Your task to perform on an android device: open app "Google Chat" Image 0: 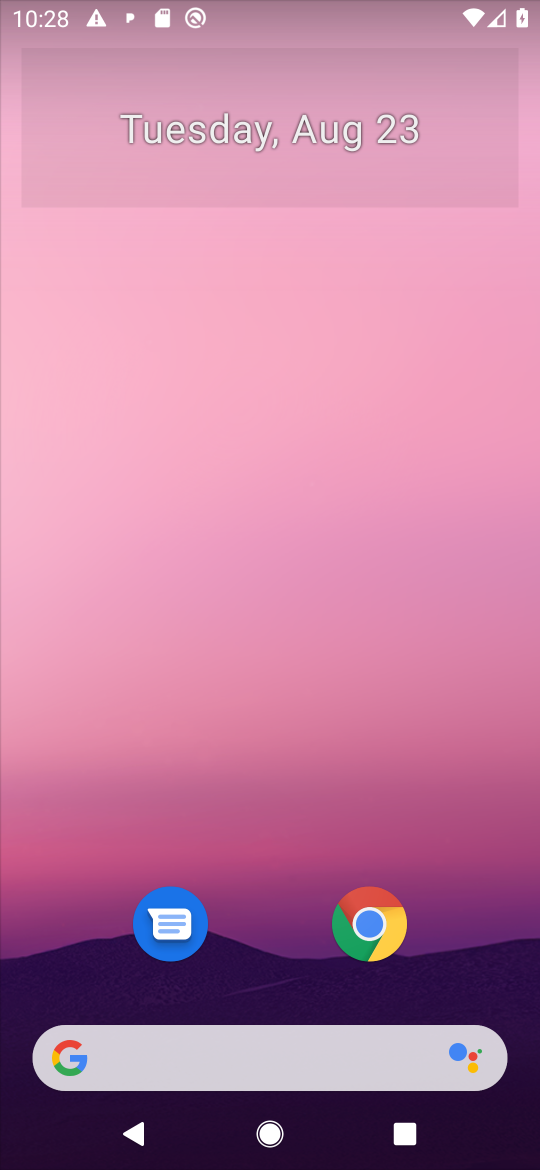
Step 0: press home button
Your task to perform on an android device: open app "Google Chat" Image 1: 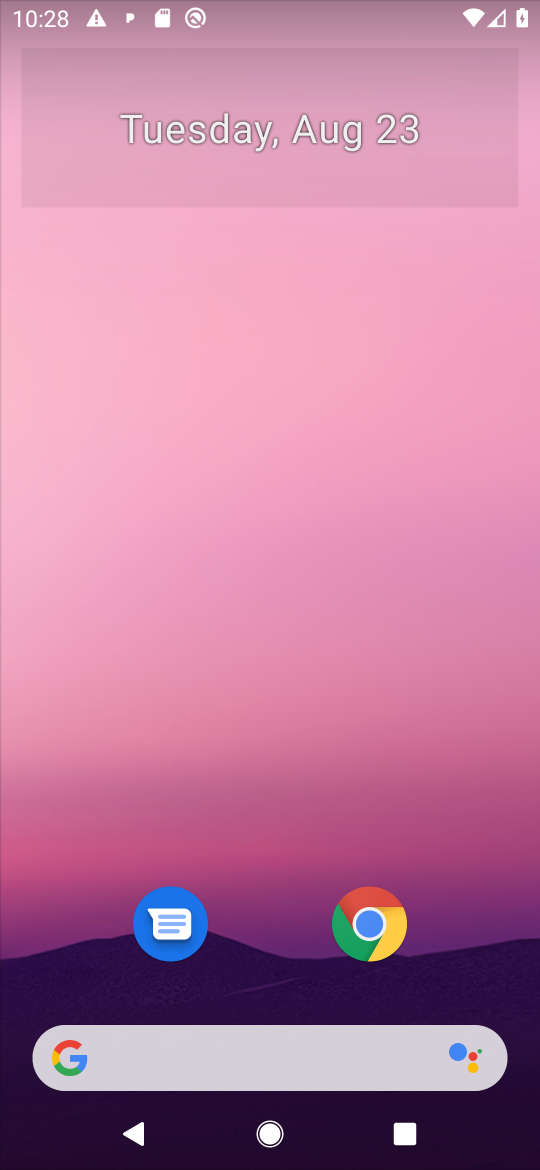
Step 1: drag from (504, 919) to (512, 143)
Your task to perform on an android device: open app "Google Chat" Image 2: 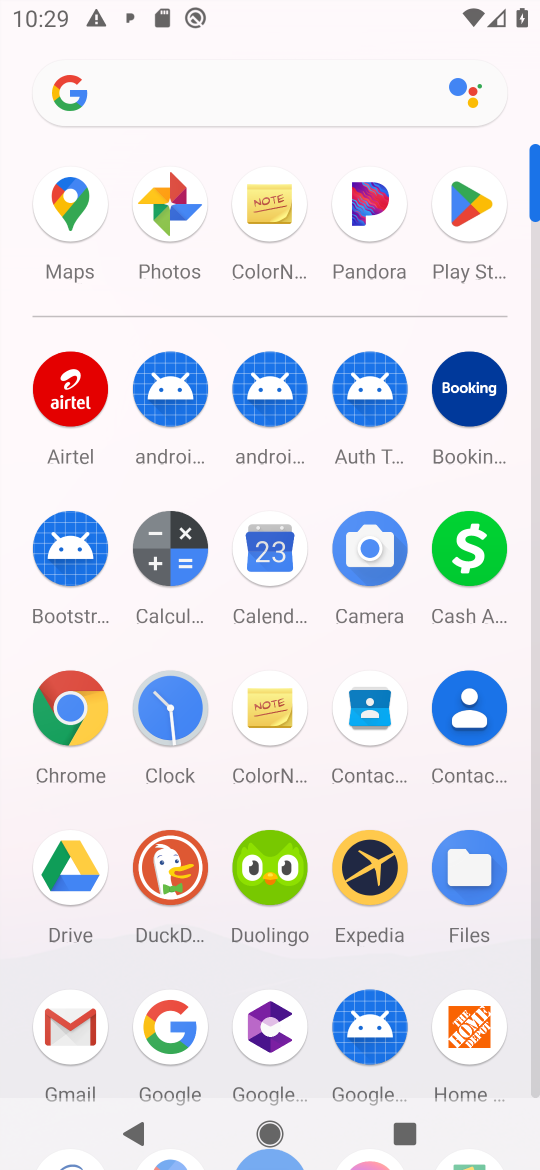
Step 2: click (468, 205)
Your task to perform on an android device: open app "Google Chat" Image 3: 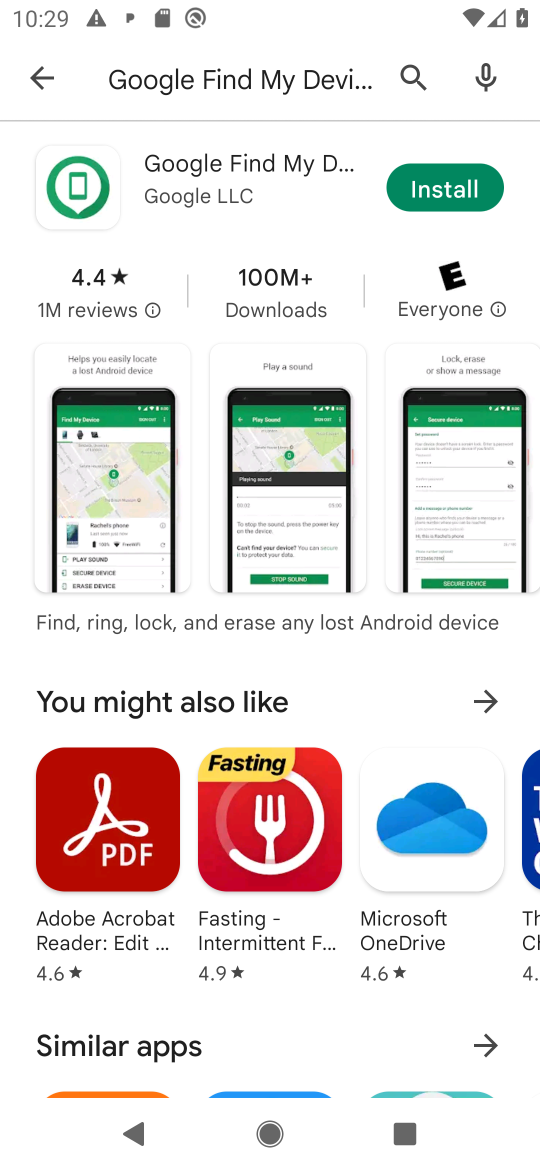
Step 3: press back button
Your task to perform on an android device: open app "Google Chat" Image 4: 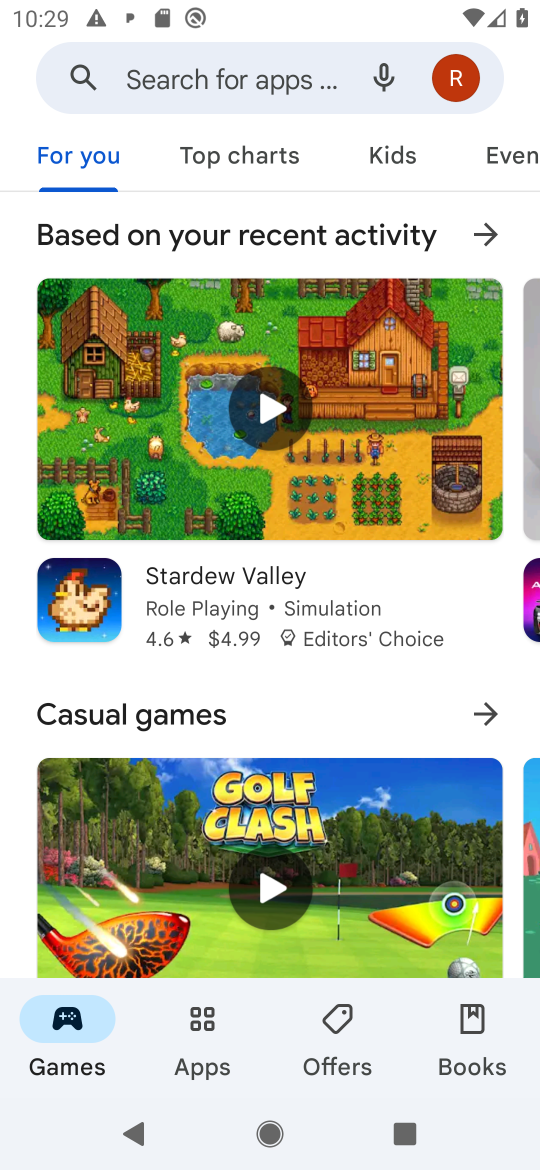
Step 4: click (272, 81)
Your task to perform on an android device: open app "Google Chat" Image 5: 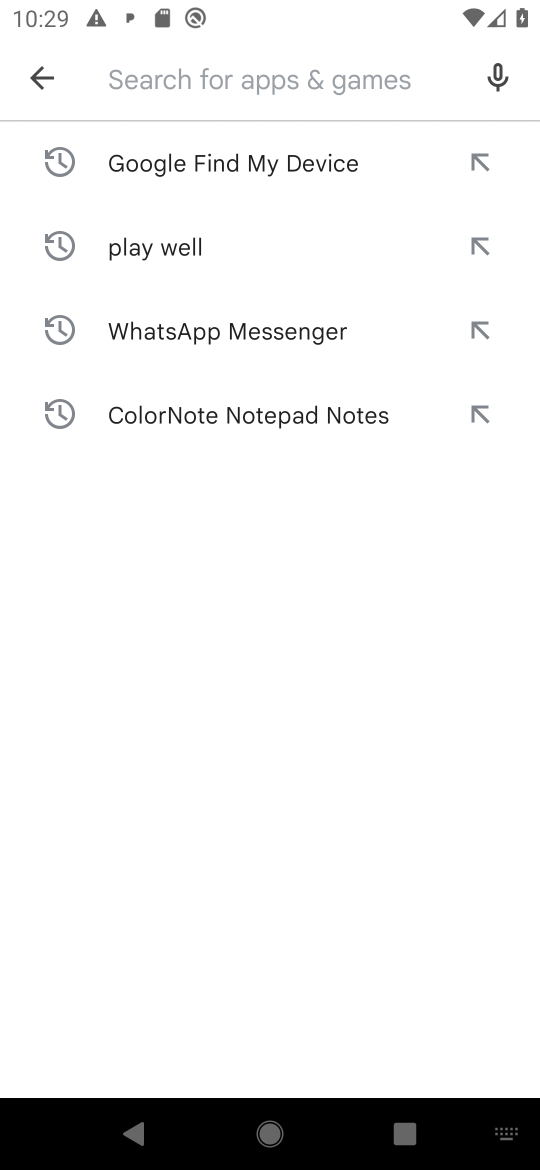
Step 5: type "google chat"
Your task to perform on an android device: open app "Google Chat" Image 6: 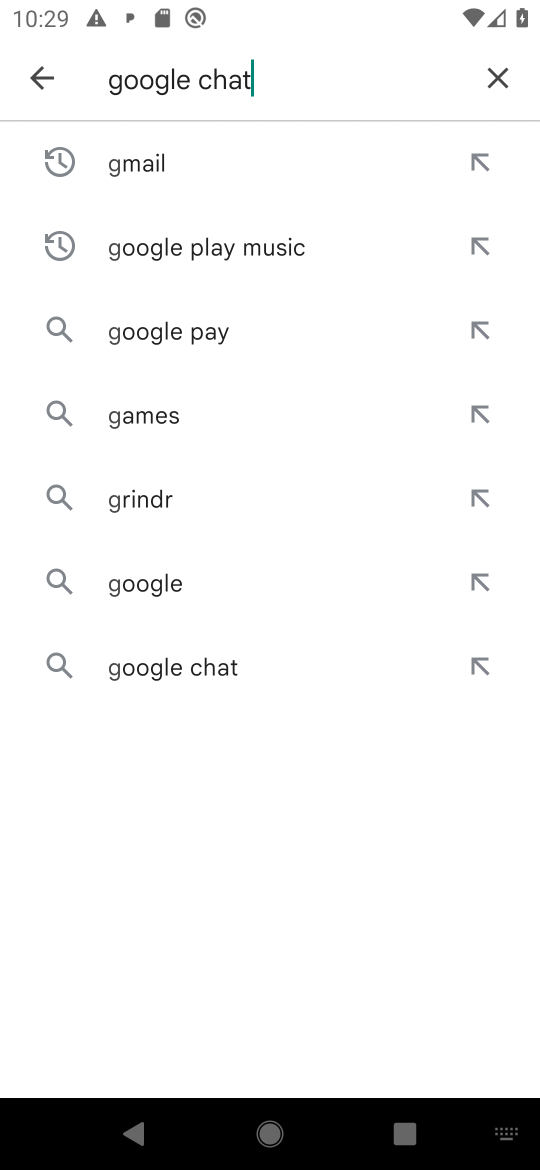
Step 6: press enter
Your task to perform on an android device: open app "Google Chat" Image 7: 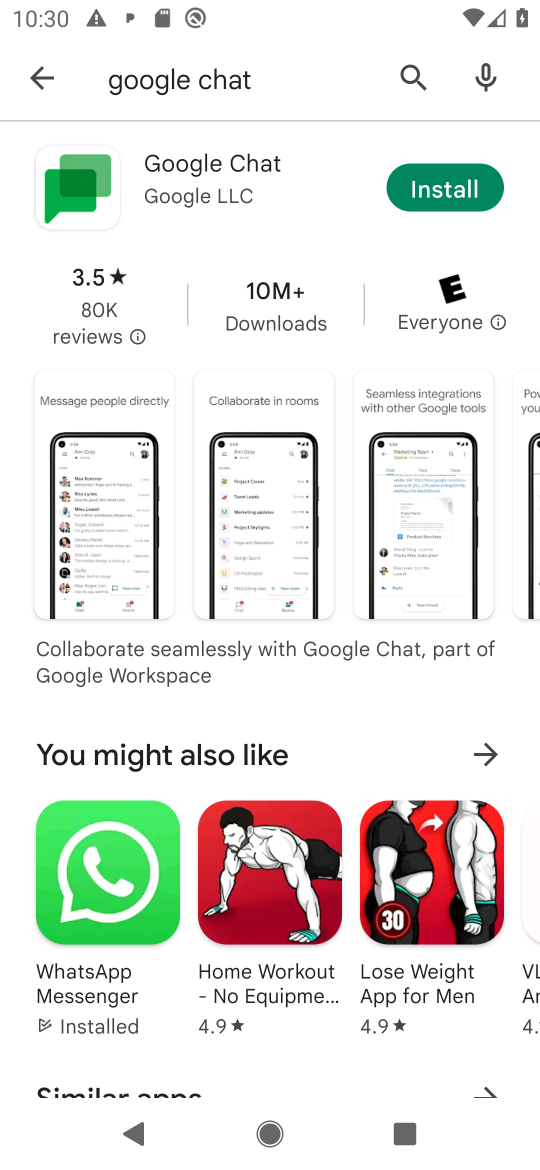
Step 7: task complete